Your task to perform on an android device: turn off translation in the chrome app Image 0: 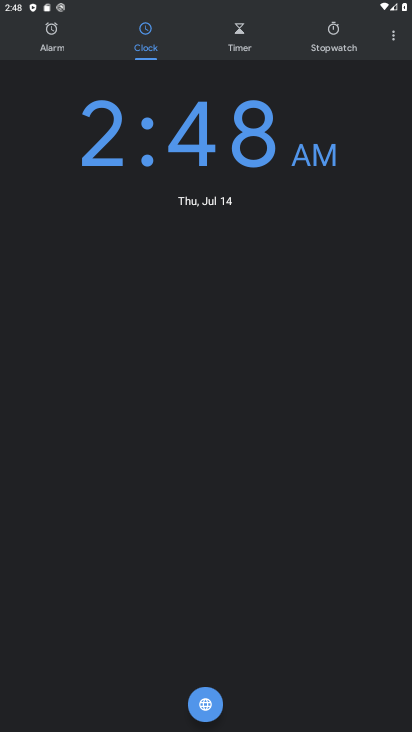
Step 0: press home button
Your task to perform on an android device: turn off translation in the chrome app Image 1: 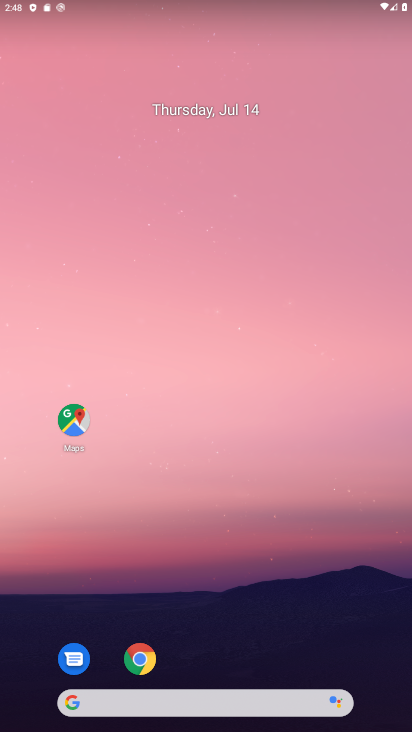
Step 1: drag from (223, 677) to (313, 127)
Your task to perform on an android device: turn off translation in the chrome app Image 2: 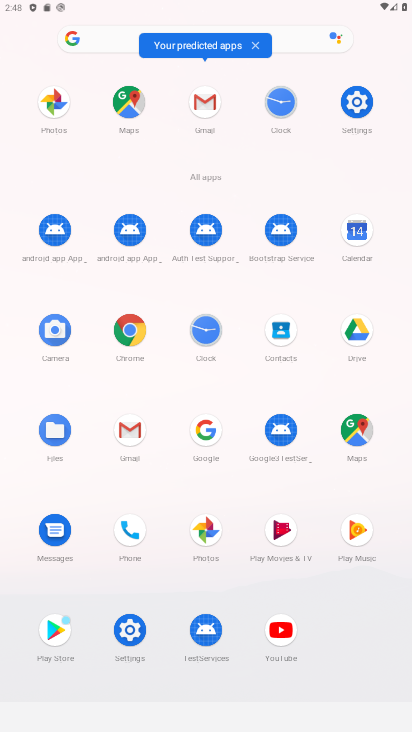
Step 2: click (123, 315)
Your task to perform on an android device: turn off translation in the chrome app Image 3: 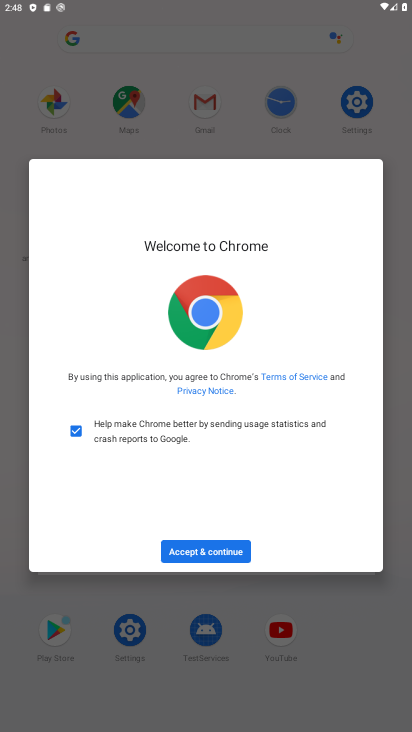
Step 3: click (225, 551)
Your task to perform on an android device: turn off translation in the chrome app Image 4: 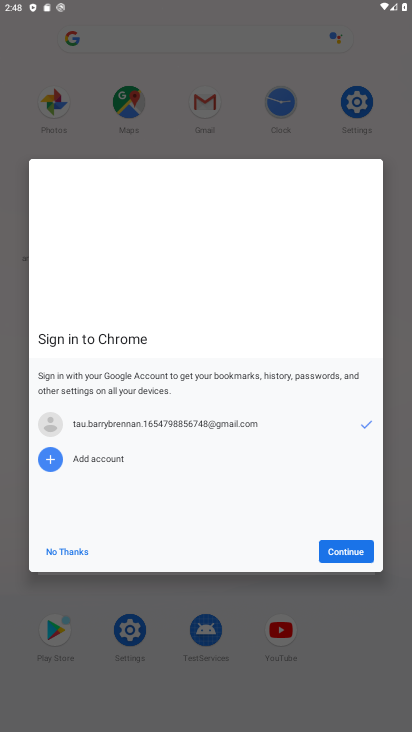
Step 4: click (336, 540)
Your task to perform on an android device: turn off translation in the chrome app Image 5: 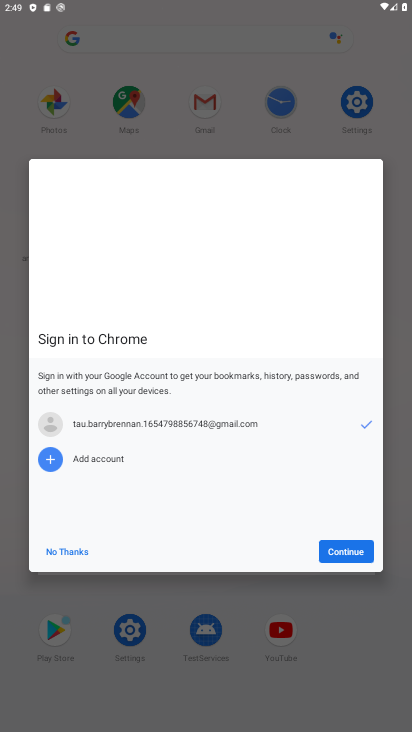
Step 5: click (354, 553)
Your task to perform on an android device: turn off translation in the chrome app Image 6: 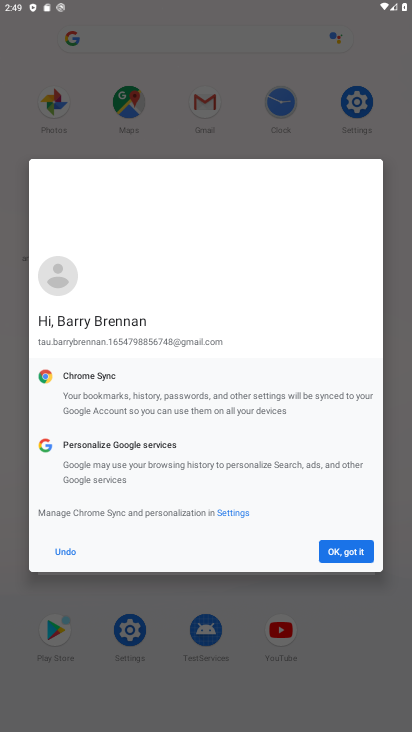
Step 6: click (356, 554)
Your task to perform on an android device: turn off translation in the chrome app Image 7: 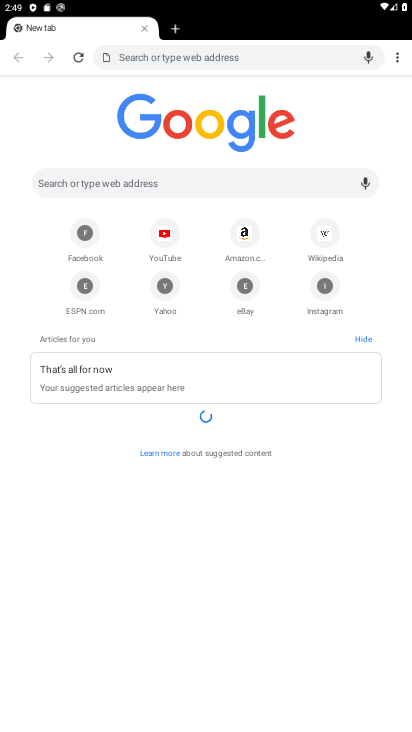
Step 7: drag from (403, 60) to (315, 265)
Your task to perform on an android device: turn off translation in the chrome app Image 8: 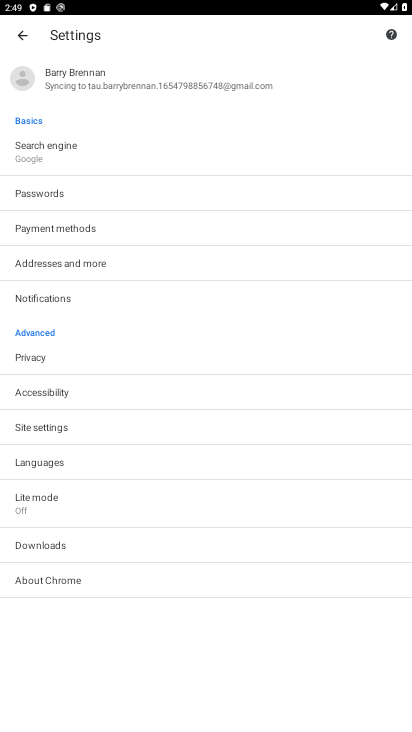
Step 8: click (78, 474)
Your task to perform on an android device: turn off translation in the chrome app Image 9: 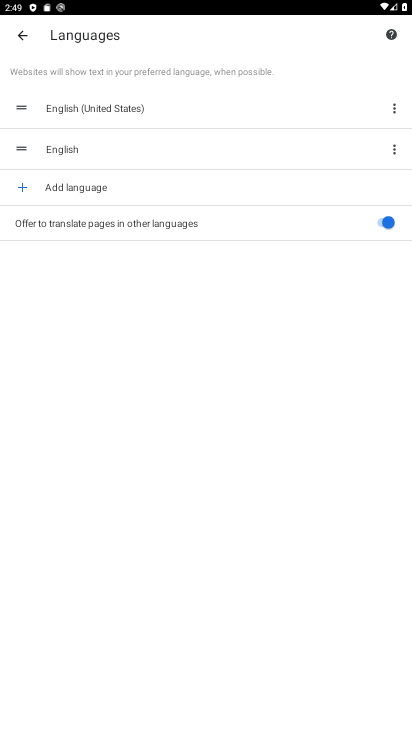
Step 9: click (378, 221)
Your task to perform on an android device: turn off translation in the chrome app Image 10: 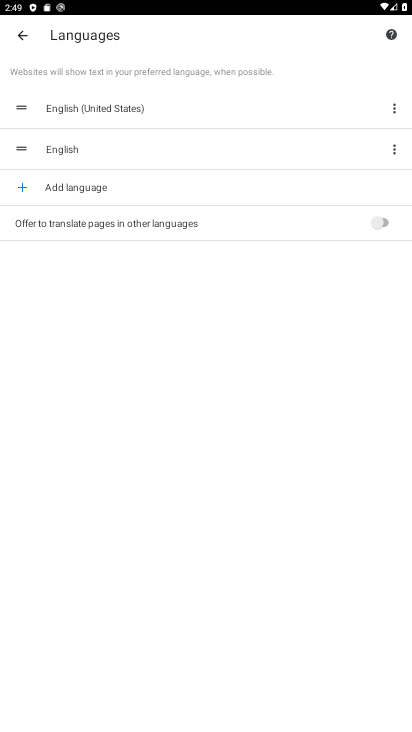
Step 10: task complete